Your task to perform on an android device: add a label to a message in the gmail app Image 0: 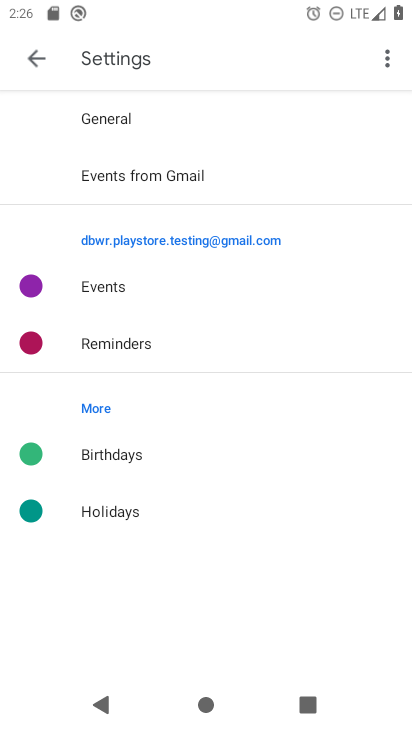
Step 0: press home button
Your task to perform on an android device: add a label to a message in the gmail app Image 1: 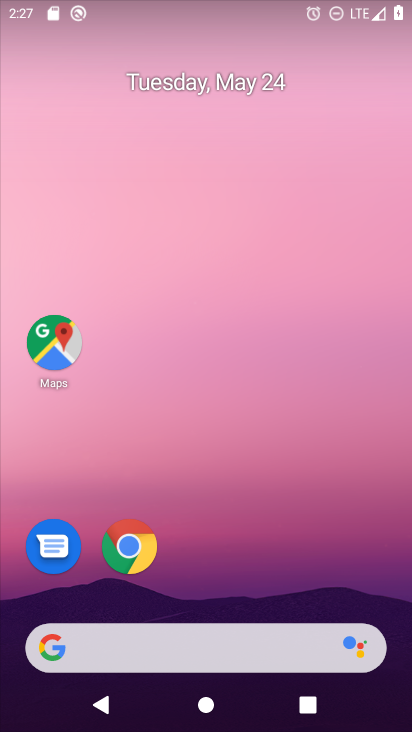
Step 1: drag from (327, 642) to (357, 65)
Your task to perform on an android device: add a label to a message in the gmail app Image 2: 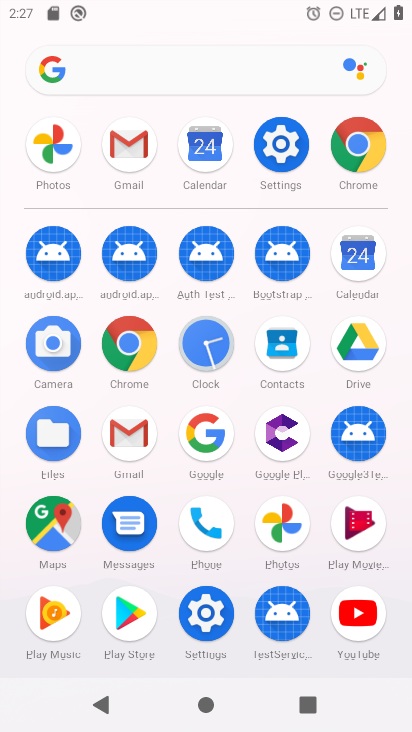
Step 2: click (132, 425)
Your task to perform on an android device: add a label to a message in the gmail app Image 3: 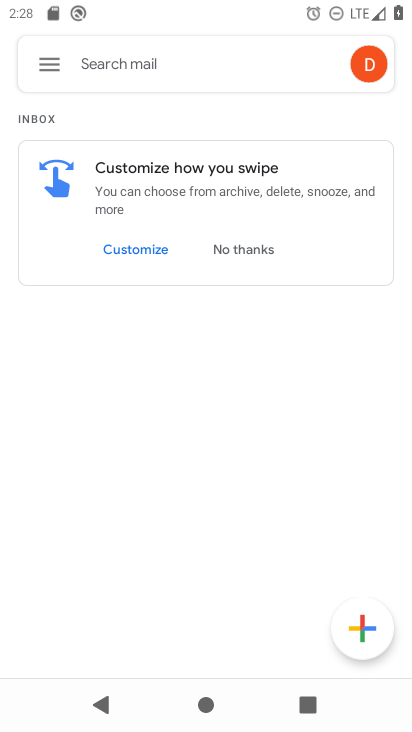
Step 3: task complete